Your task to perform on an android device: Open Android settings Image 0: 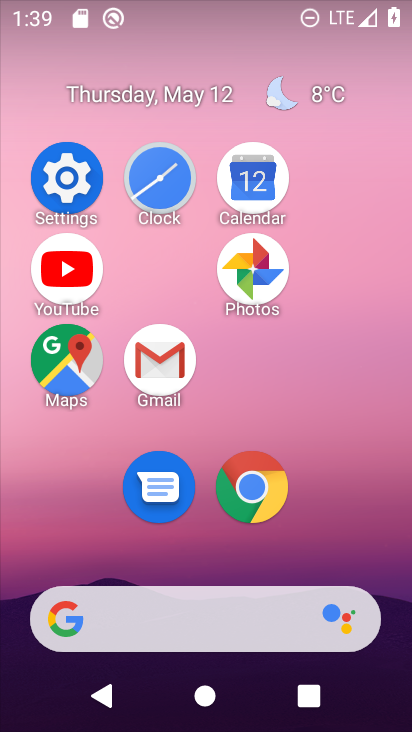
Step 0: click (59, 166)
Your task to perform on an android device: Open Android settings Image 1: 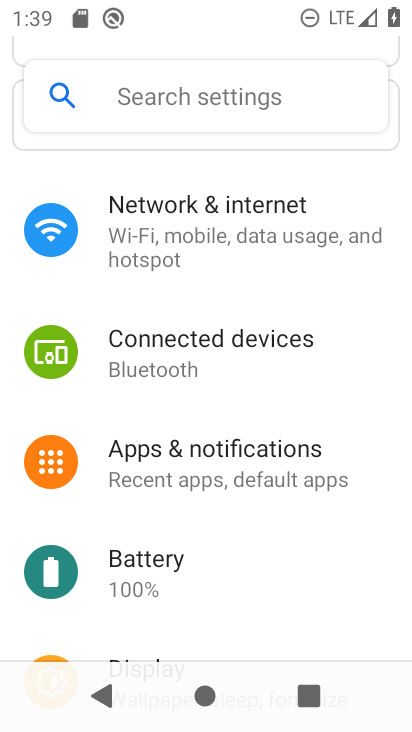
Step 1: task complete